Your task to perform on an android device: Go to display settings Image 0: 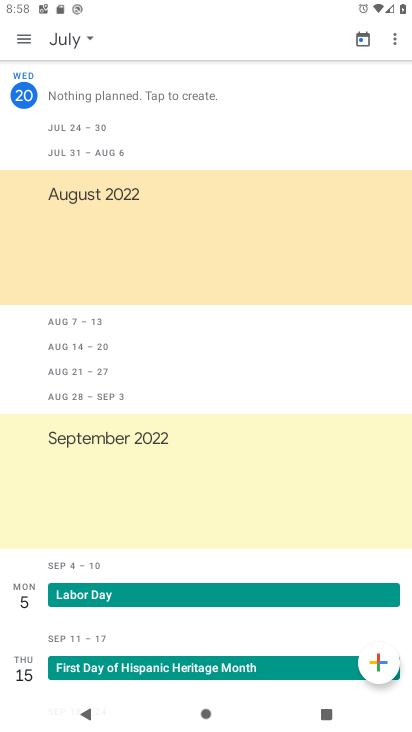
Step 0: press home button
Your task to perform on an android device: Go to display settings Image 1: 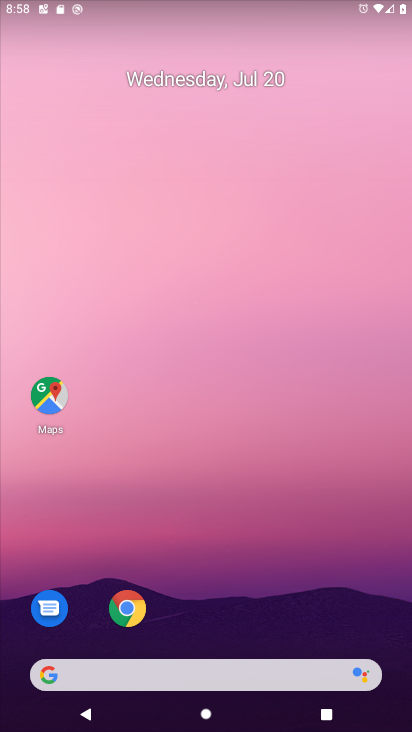
Step 1: drag from (204, 628) to (198, 251)
Your task to perform on an android device: Go to display settings Image 2: 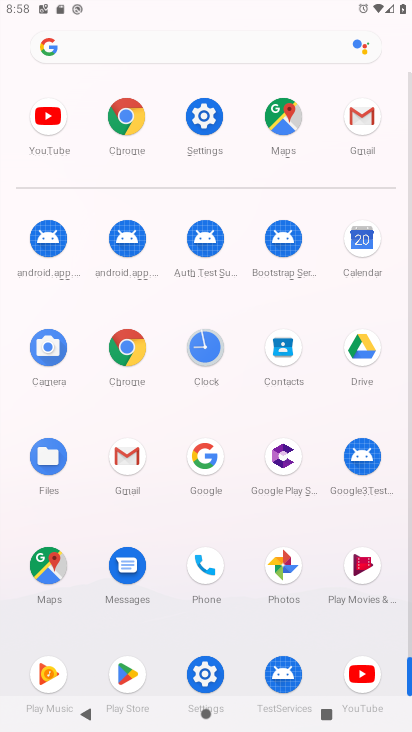
Step 2: click (191, 114)
Your task to perform on an android device: Go to display settings Image 3: 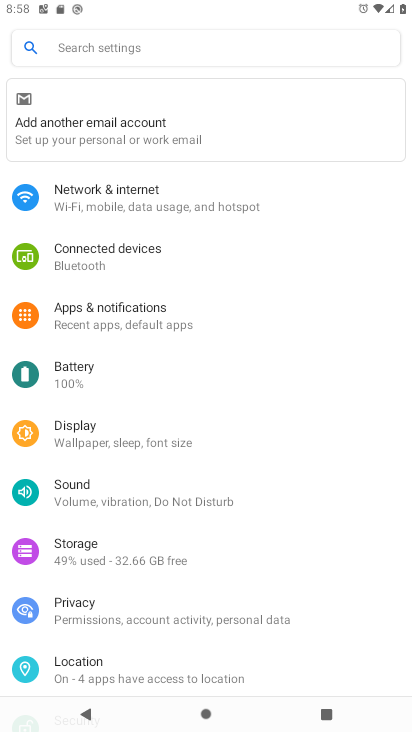
Step 3: click (115, 441)
Your task to perform on an android device: Go to display settings Image 4: 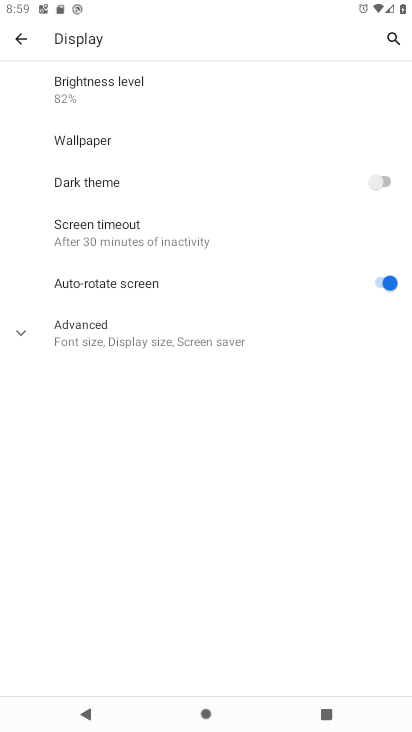
Step 4: task complete